Your task to perform on an android device: What's on my calendar tomorrow? Image 0: 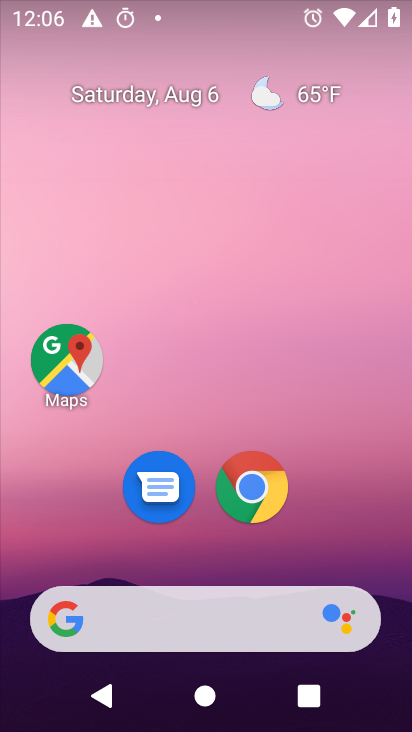
Step 0: drag from (134, 511) to (242, 31)
Your task to perform on an android device: What's on my calendar tomorrow? Image 1: 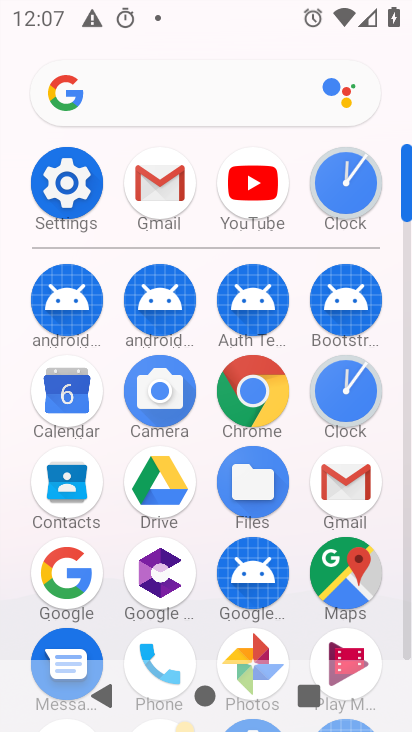
Step 1: click (64, 397)
Your task to perform on an android device: What's on my calendar tomorrow? Image 2: 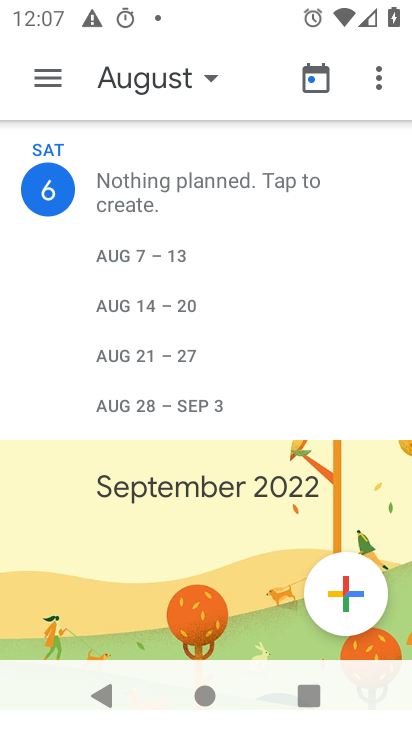
Step 2: task complete